Your task to perform on an android device: add a contact Image 0: 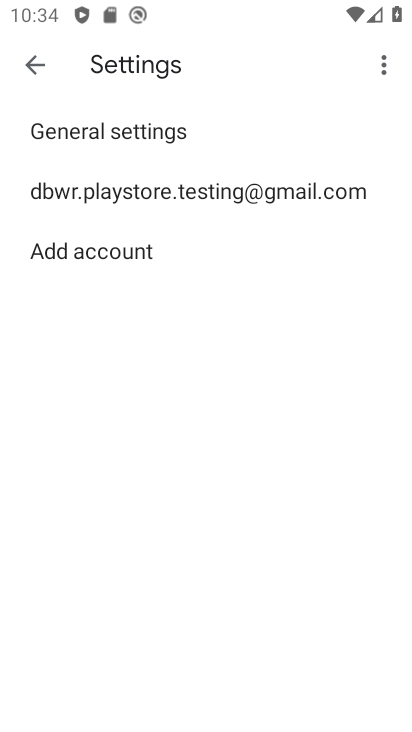
Step 0: click (18, 63)
Your task to perform on an android device: add a contact Image 1: 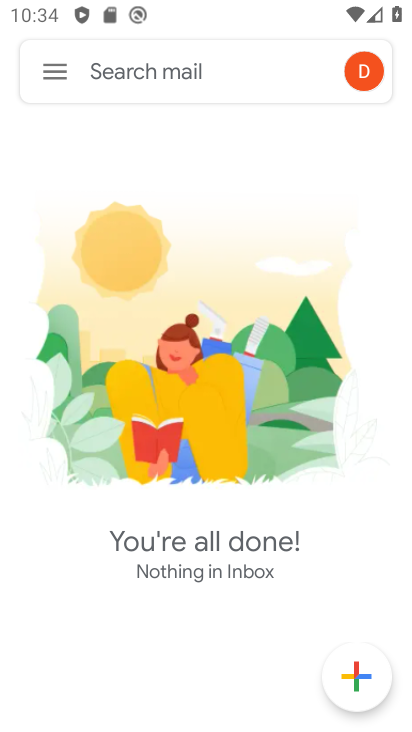
Step 1: press back button
Your task to perform on an android device: add a contact Image 2: 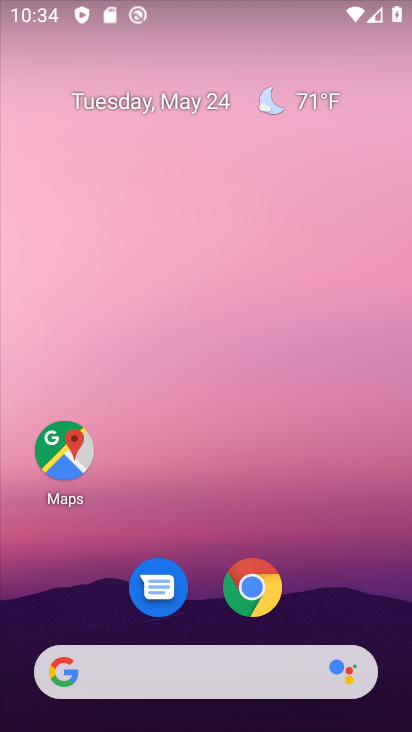
Step 2: drag from (279, 677) to (209, 40)
Your task to perform on an android device: add a contact Image 3: 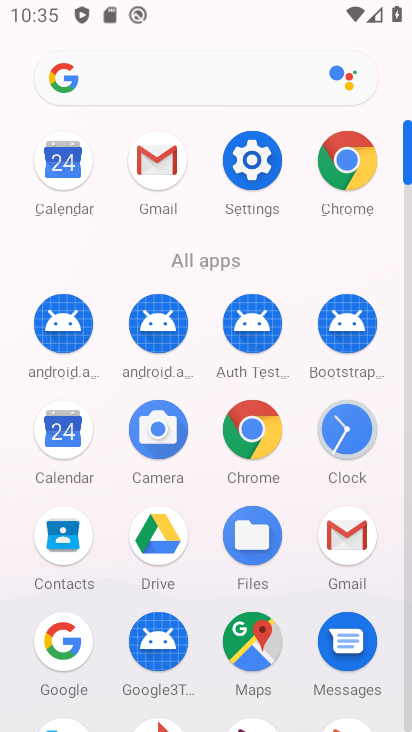
Step 3: click (64, 545)
Your task to perform on an android device: add a contact Image 4: 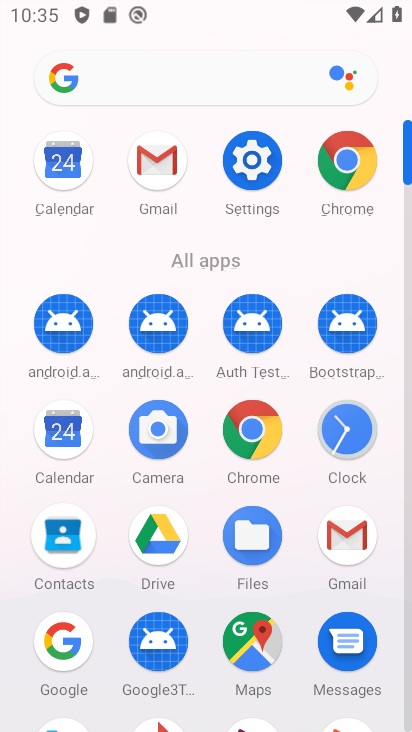
Step 4: click (72, 538)
Your task to perform on an android device: add a contact Image 5: 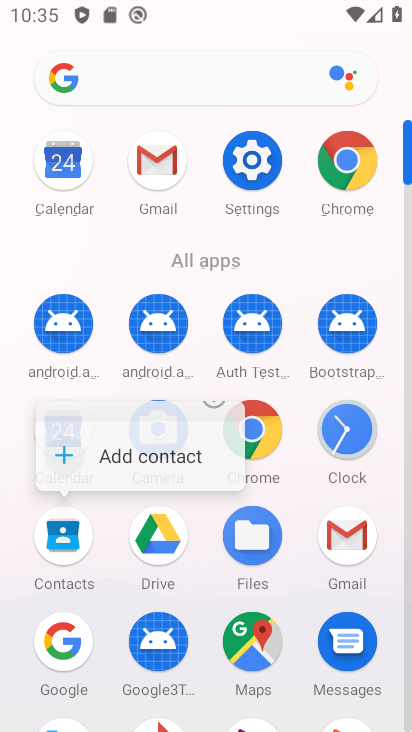
Step 5: click (74, 538)
Your task to perform on an android device: add a contact Image 6: 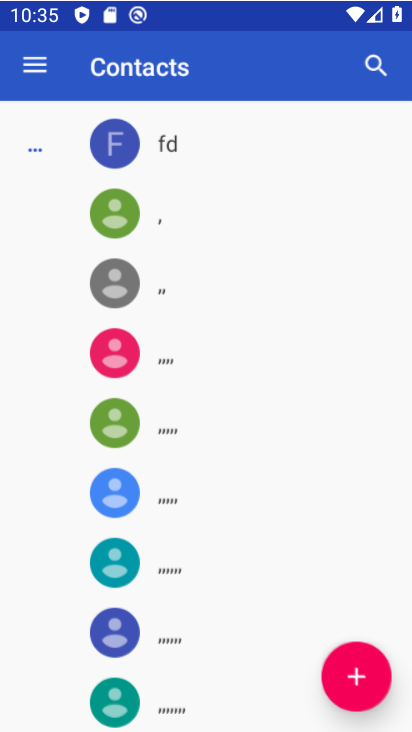
Step 6: click (78, 535)
Your task to perform on an android device: add a contact Image 7: 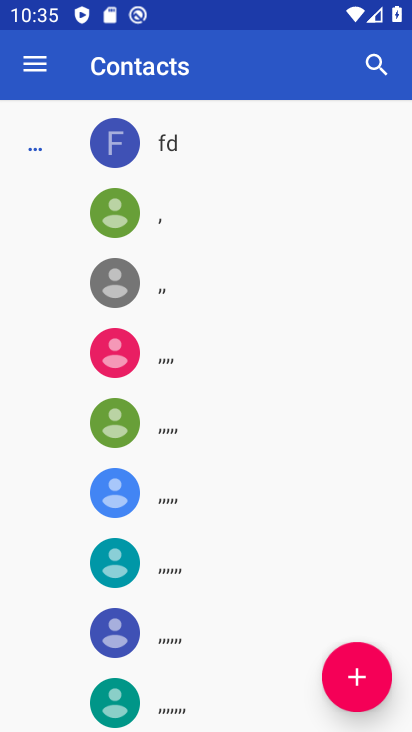
Step 7: click (78, 535)
Your task to perform on an android device: add a contact Image 8: 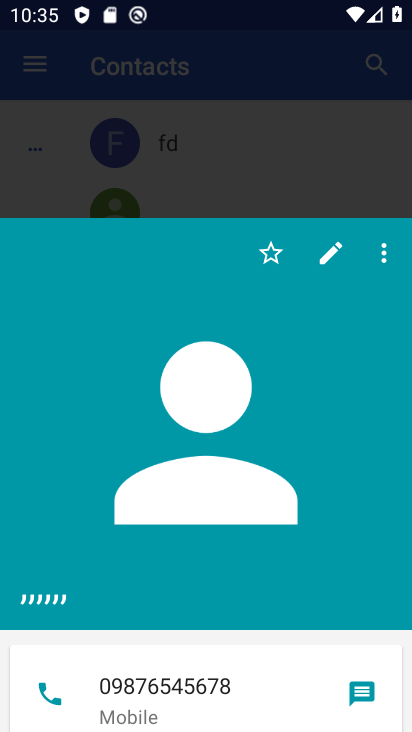
Step 8: click (339, 146)
Your task to perform on an android device: add a contact Image 9: 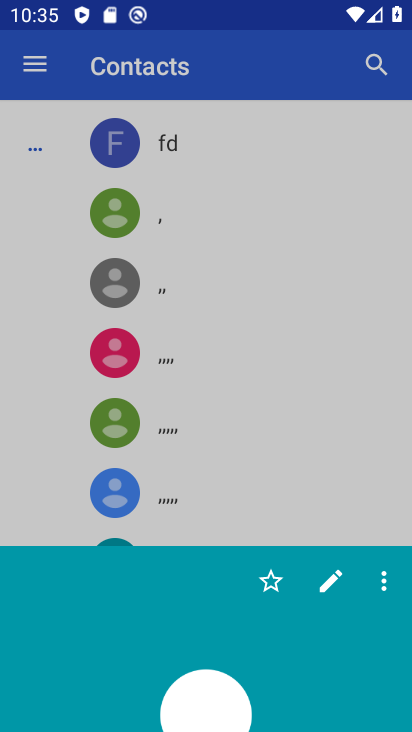
Step 9: click (339, 146)
Your task to perform on an android device: add a contact Image 10: 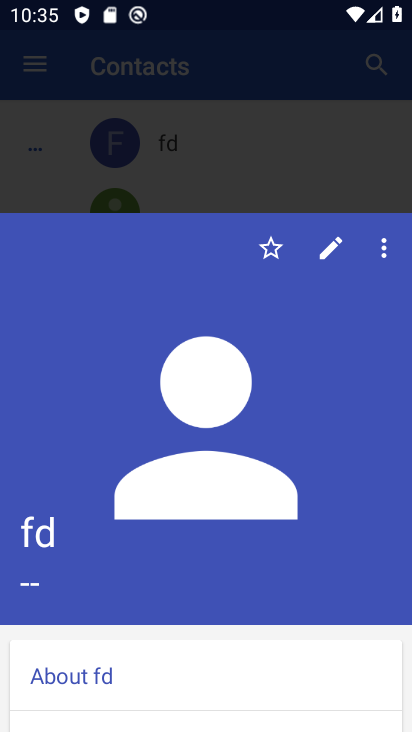
Step 10: drag from (290, 583) to (283, 228)
Your task to perform on an android device: add a contact Image 11: 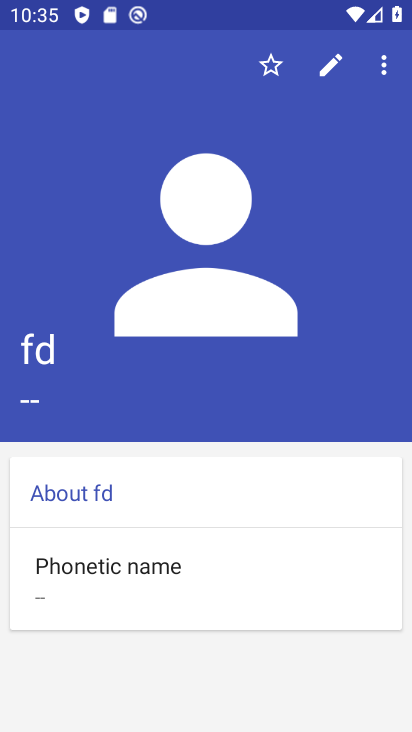
Step 11: press back button
Your task to perform on an android device: add a contact Image 12: 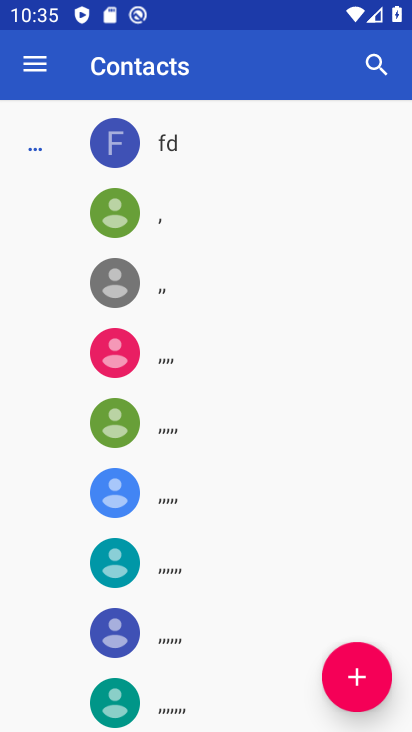
Step 12: click (364, 673)
Your task to perform on an android device: add a contact Image 13: 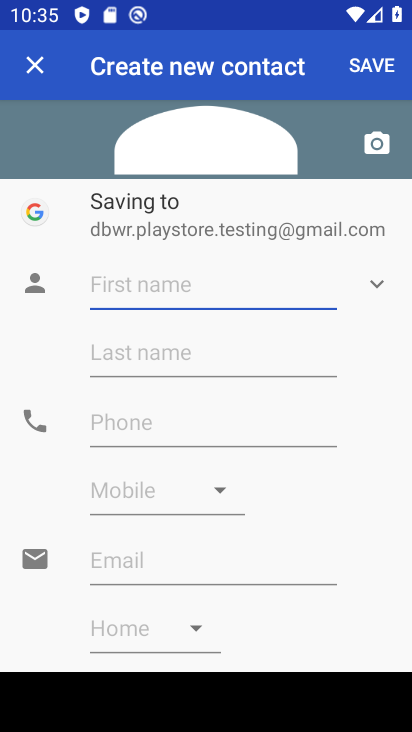
Step 13: type "bfjgjkfgljvsj"
Your task to perform on an android device: add a contact Image 14: 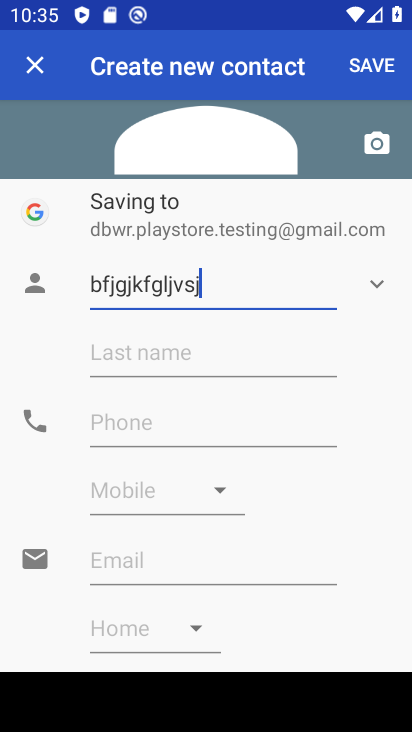
Step 14: click (105, 416)
Your task to perform on an android device: add a contact Image 15: 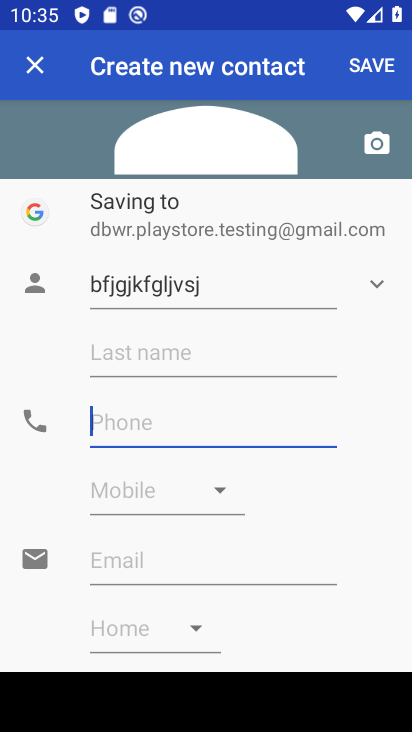
Step 15: click (105, 416)
Your task to perform on an android device: add a contact Image 16: 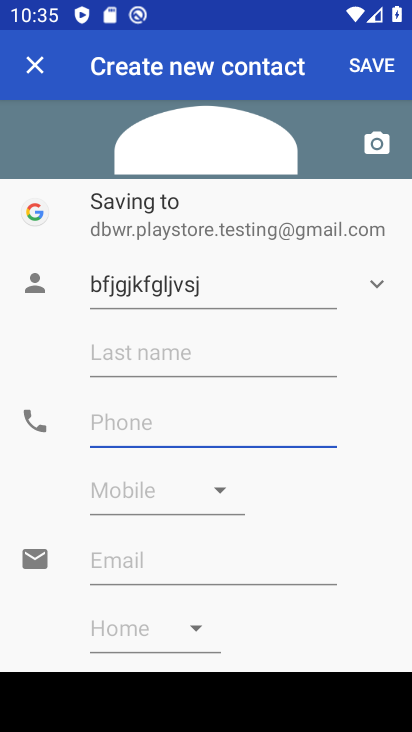
Step 16: click (105, 416)
Your task to perform on an android device: add a contact Image 17: 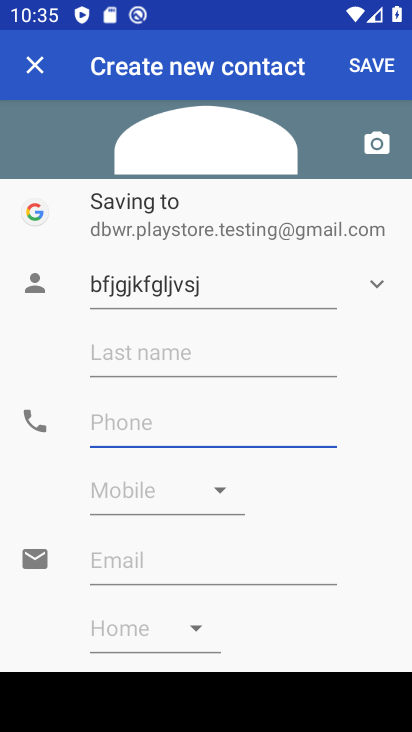
Step 17: type "87679859847894924"
Your task to perform on an android device: add a contact Image 18: 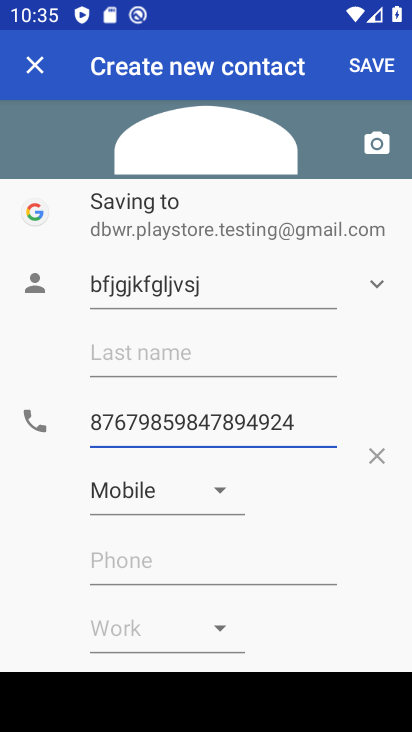
Step 18: click (381, 56)
Your task to perform on an android device: add a contact Image 19: 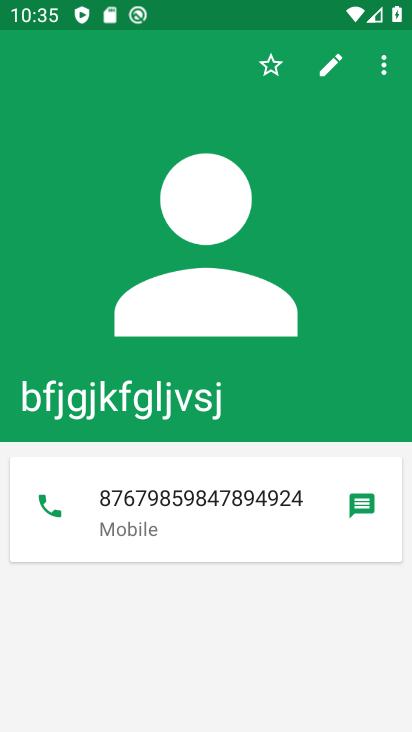
Step 19: task complete